Your task to perform on an android device: clear history in the chrome app Image 0: 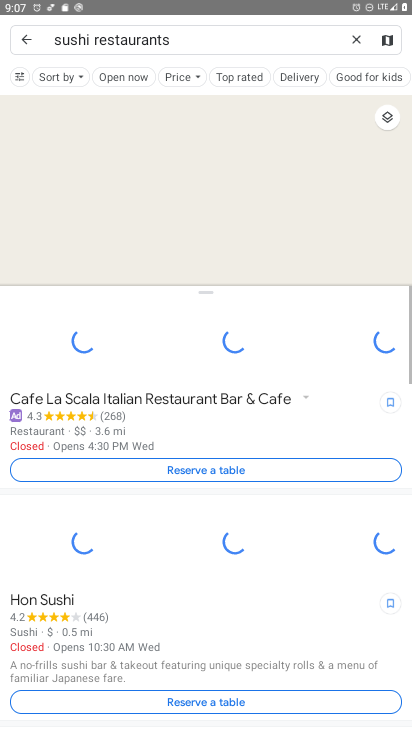
Step 0: press home button
Your task to perform on an android device: clear history in the chrome app Image 1: 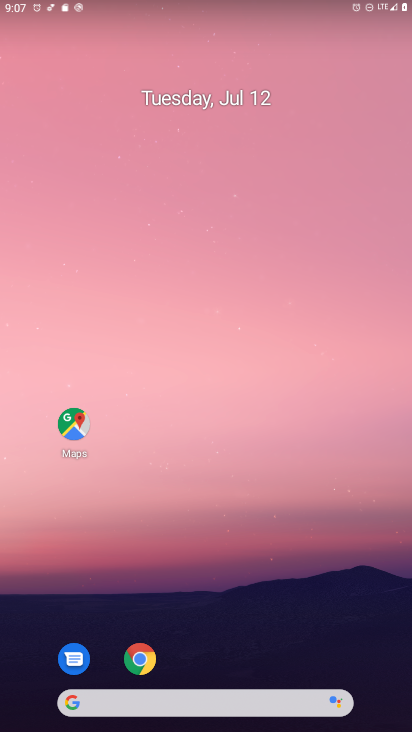
Step 1: click (141, 661)
Your task to perform on an android device: clear history in the chrome app Image 2: 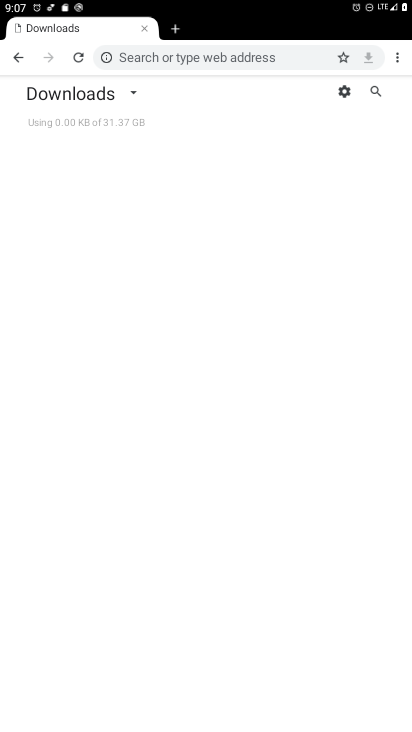
Step 2: click (397, 59)
Your task to perform on an android device: clear history in the chrome app Image 3: 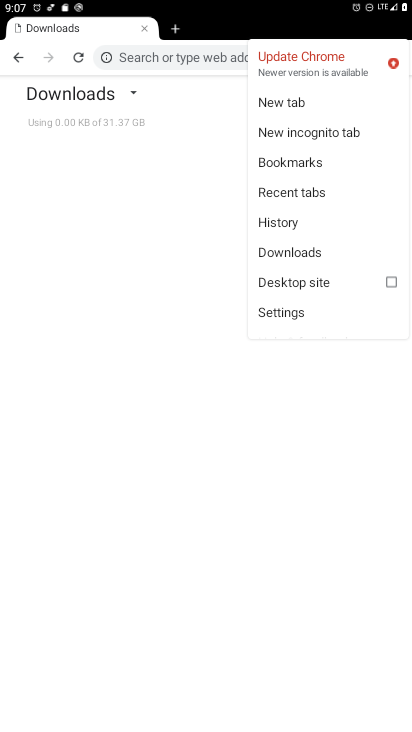
Step 3: click (285, 221)
Your task to perform on an android device: clear history in the chrome app Image 4: 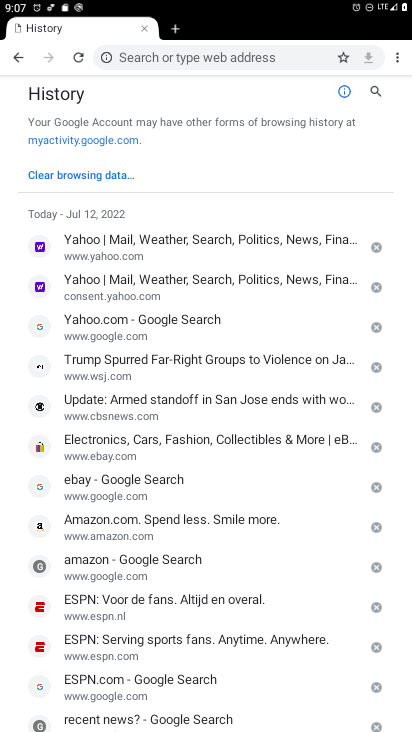
Step 4: click (109, 179)
Your task to perform on an android device: clear history in the chrome app Image 5: 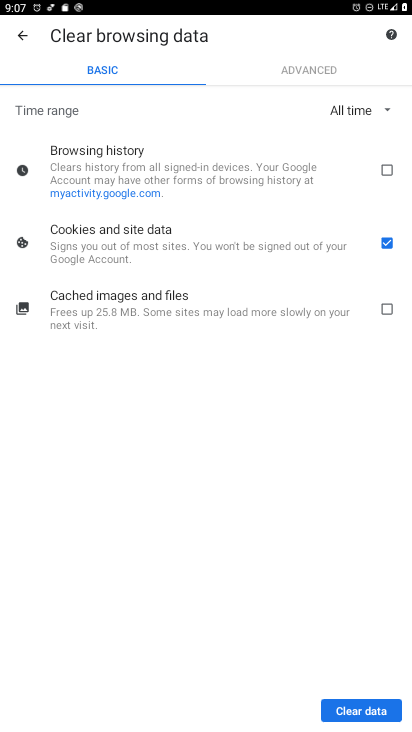
Step 5: click (395, 167)
Your task to perform on an android device: clear history in the chrome app Image 6: 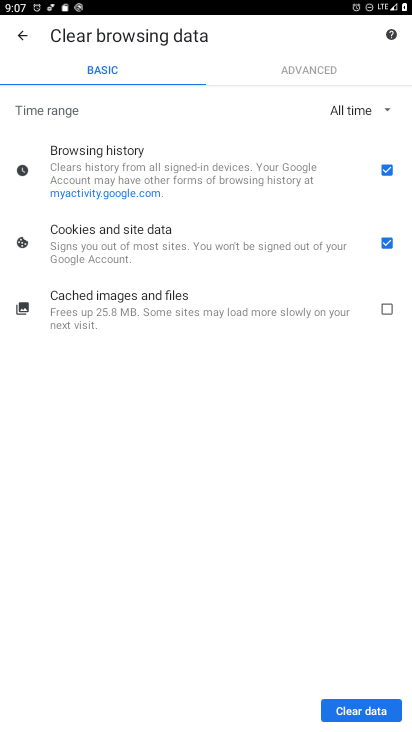
Step 6: click (384, 313)
Your task to perform on an android device: clear history in the chrome app Image 7: 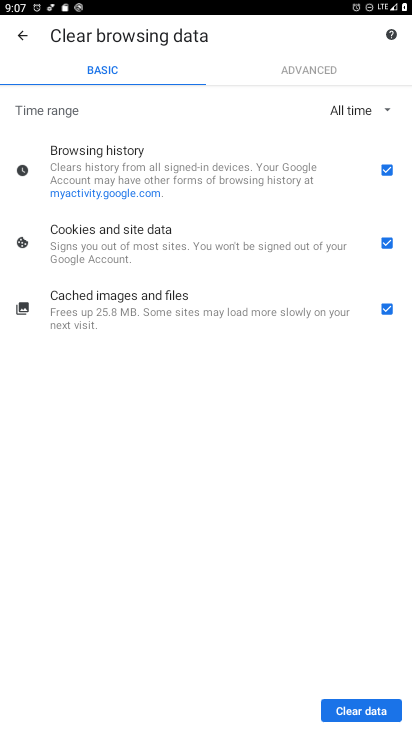
Step 7: click (356, 713)
Your task to perform on an android device: clear history in the chrome app Image 8: 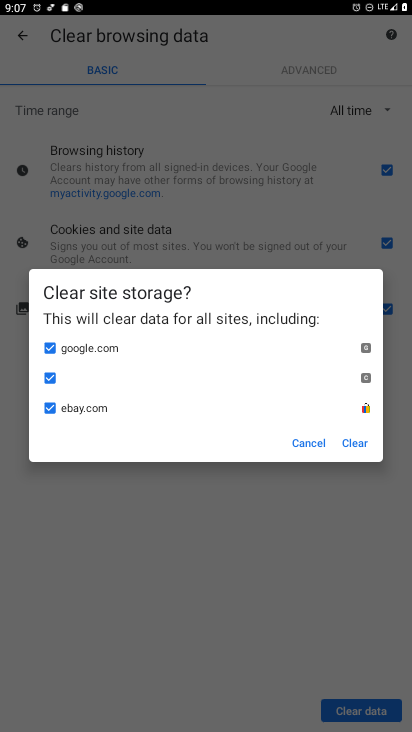
Step 8: click (354, 444)
Your task to perform on an android device: clear history in the chrome app Image 9: 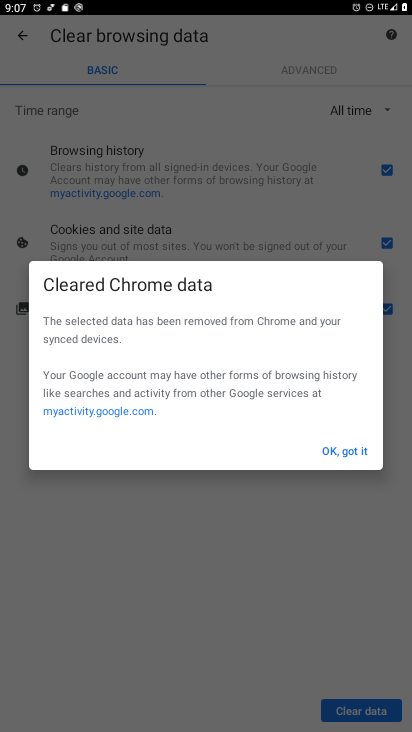
Step 9: click (354, 444)
Your task to perform on an android device: clear history in the chrome app Image 10: 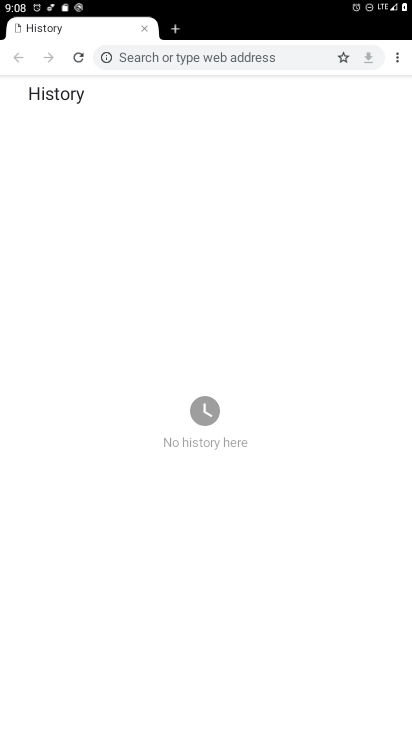
Step 10: task complete